Your task to perform on an android device: Check the news Image 0: 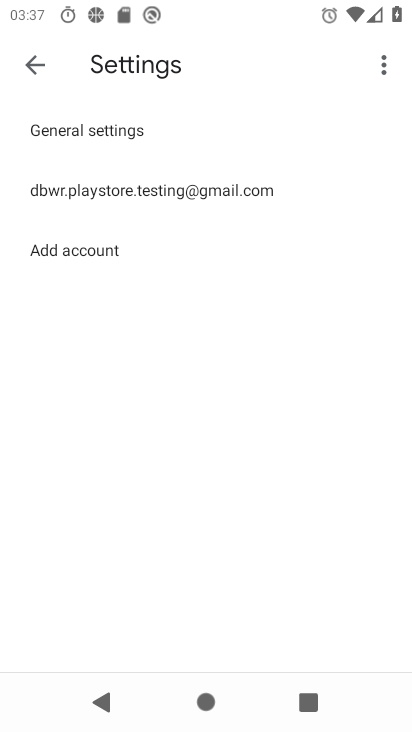
Step 0: press back button
Your task to perform on an android device: Check the news Image 1: 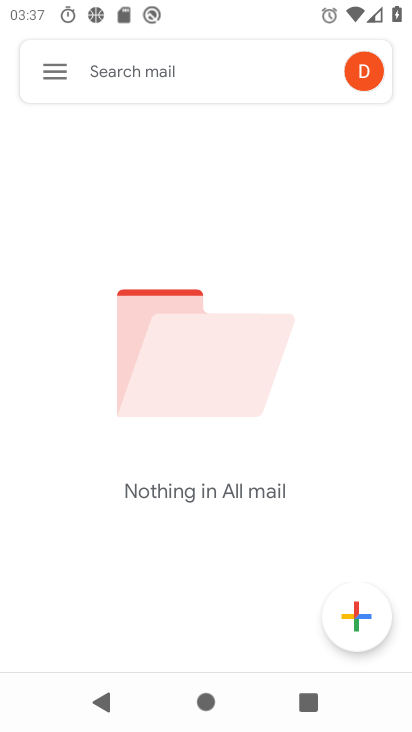
Step 1: press back button
Your task to perform on an android device: Check the news Image 2: 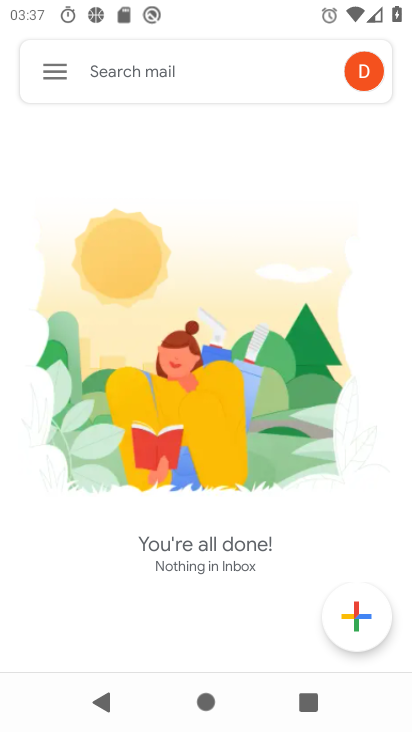
Step 2: press home button
Your task to perform on an android device: Check the news Image 3: 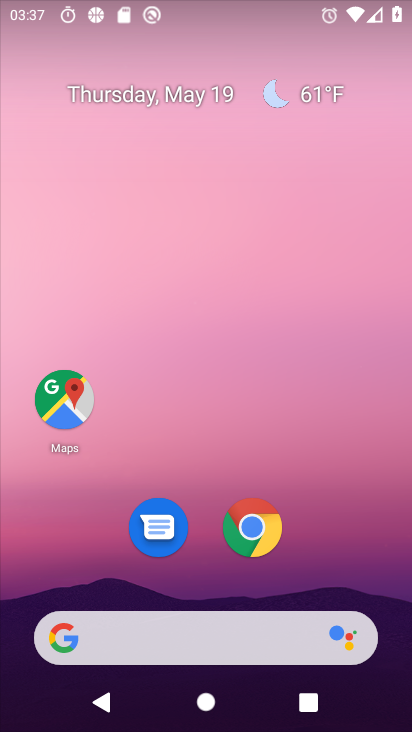
Step 3: click (132, 641)
Your task to perform on an android device: Check the news Image 4: 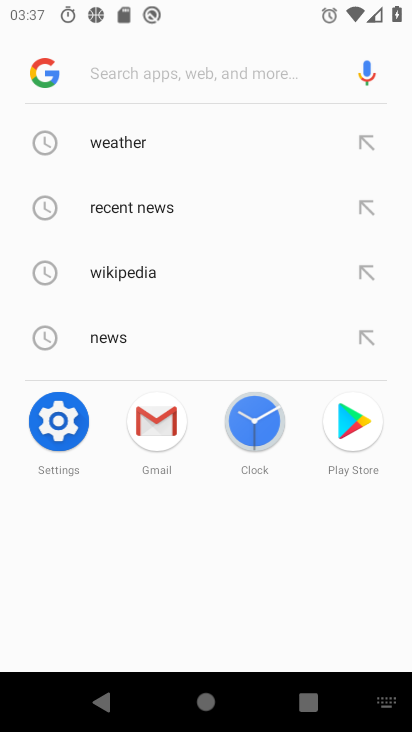
Step 4: click (100, 334)
Your task to perform on an android device: Check the news Image 5: 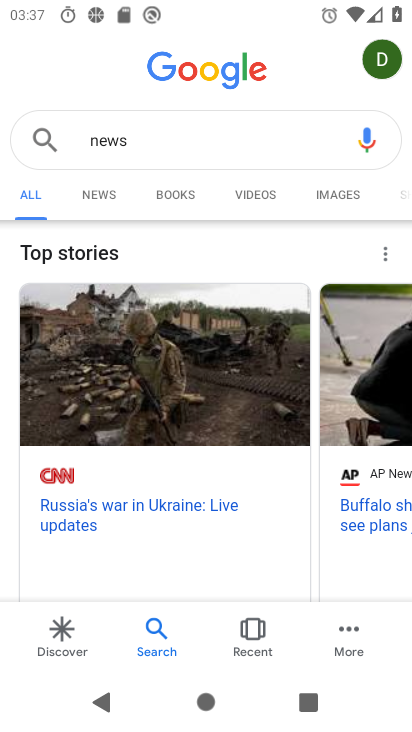
Step 5: task complete